Your task to perform on an android device: Go to accessibility settings Image 0: 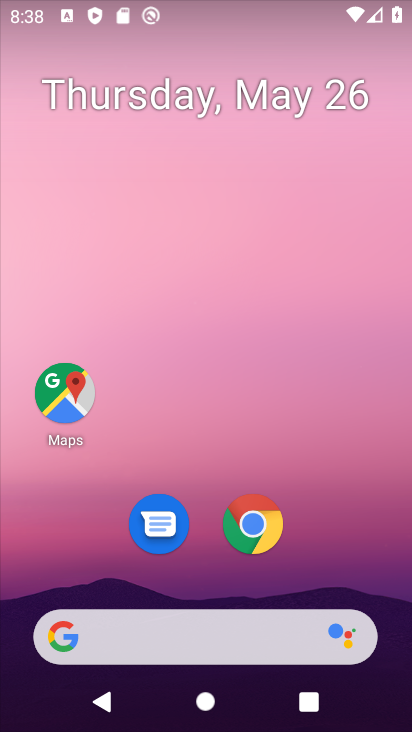
Step 0: drag from (328, 484) to (231, 49)
Your task to perform on an android device: Go to accessibility settings Image 1: 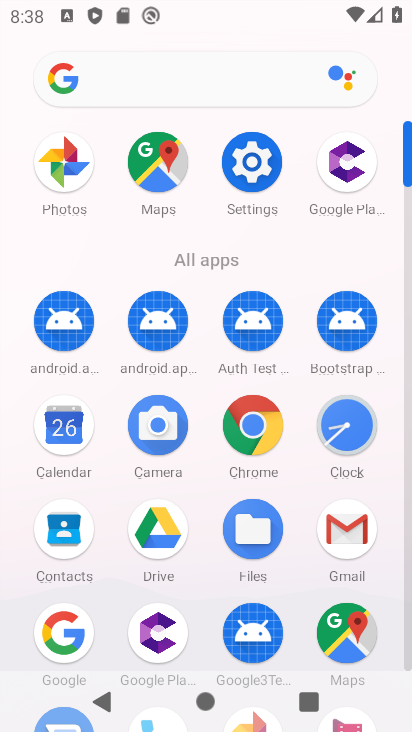
Step 1: click (243, 162)
Your task to perform on an android device: Go to accessibility settings Image 2: 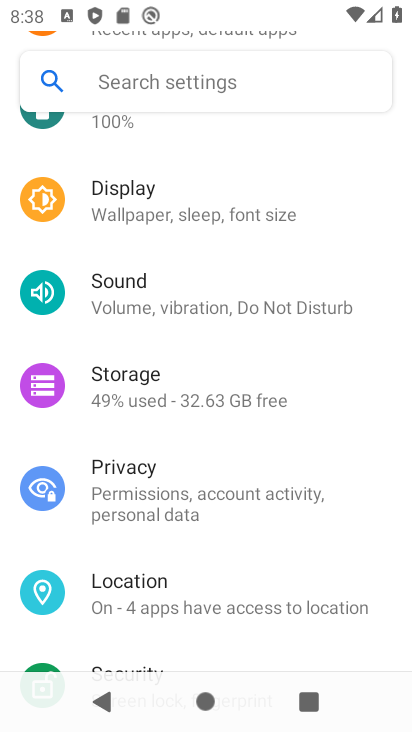
Step 2: drag from (263, 567) to (206, 106)
Your task to perform on an android device: Go to accessibility settings Image 3: 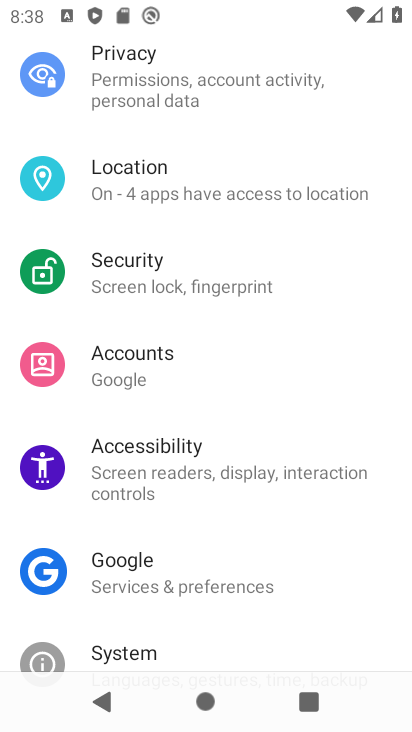
Step 3: click (228, 455)
Your task to perform on an android device: Go to accessibility settings Image 4: 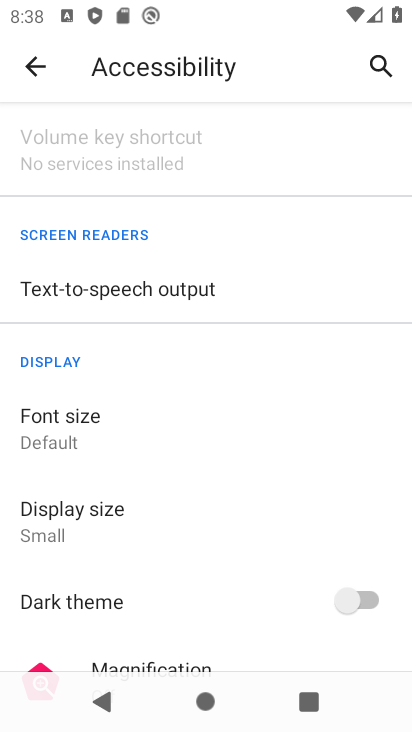
Step 4: task complete